Your task to perform on an android device: toggle airplane mode Image 0: 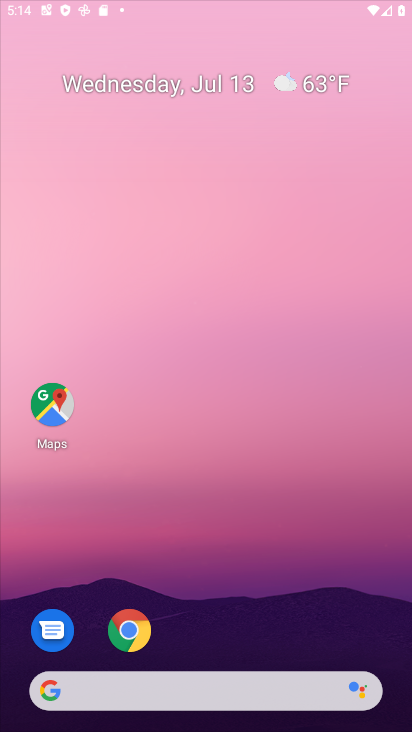
Step 0: press home button
Your task to perform on an android device: toggle airplane mode Image 1: 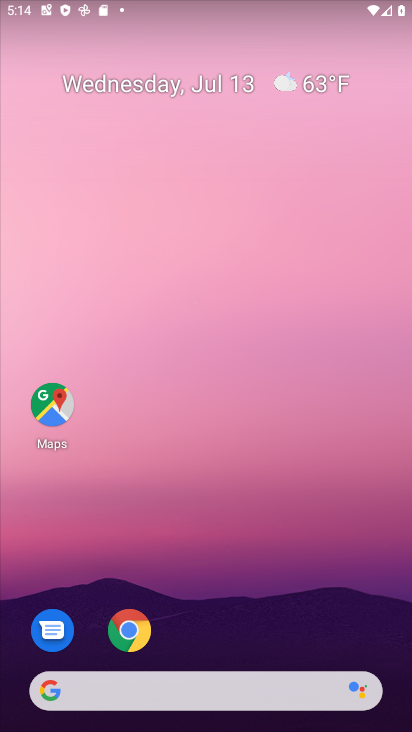
Step 1: drag from (209, 5) to (208, 639)
Your task to perform on an android device: toggle airplane mode Image 2: 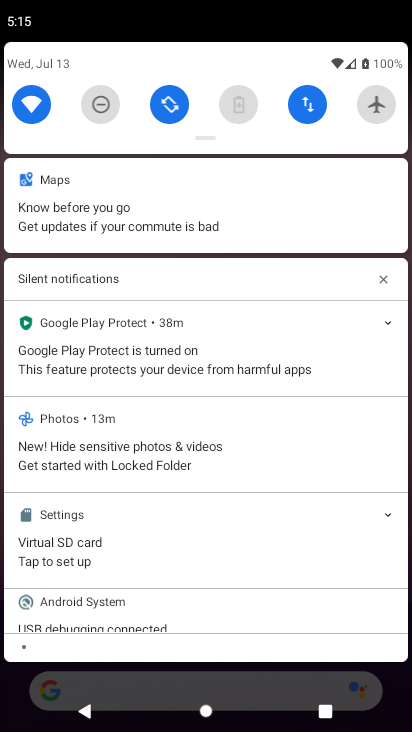
Step 2: click (373, 104)
Your task to perform on an android device: toggle airplane mode Image 3: 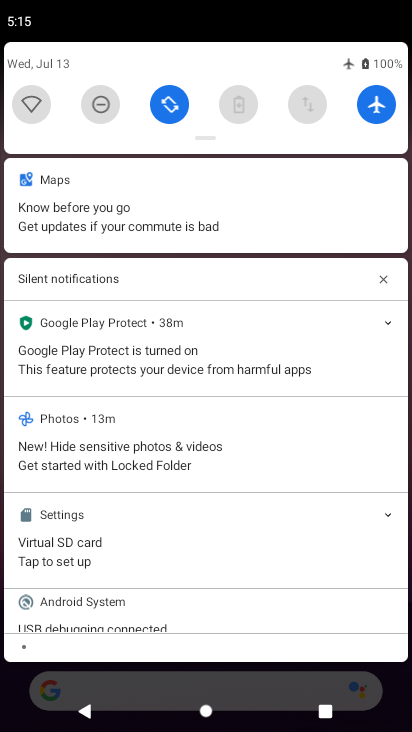
Step 3: task complete